Your task to perform on an android device: What's the weather today? Image 0: 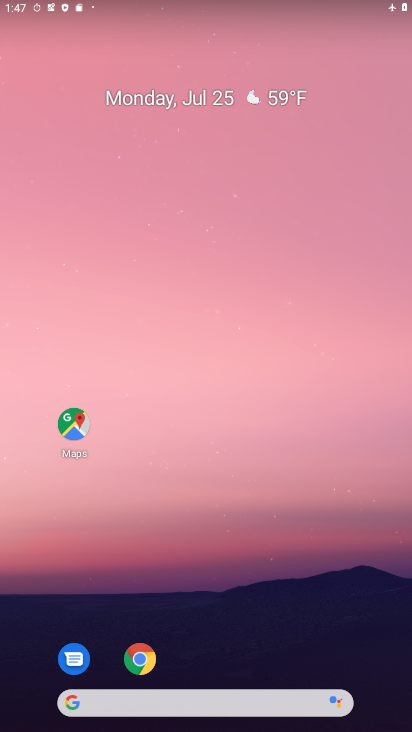
Step 0: click (158, 687)
Your task to perform on an android device: What's the weather today? Image 1: 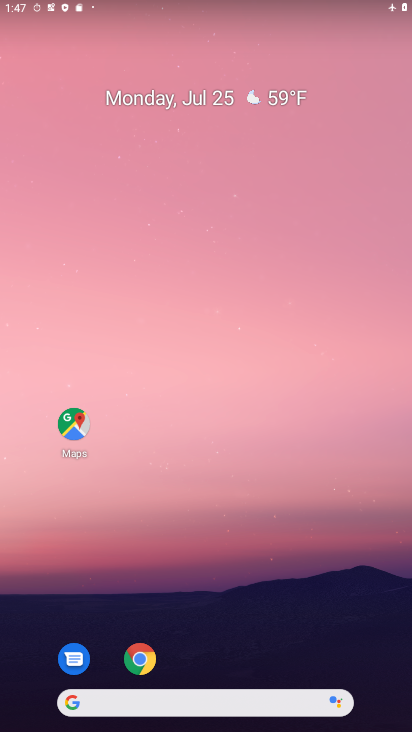
Step 1: click (157, 694)
Your task to perform on an android device: What's the weather today? Image 2: 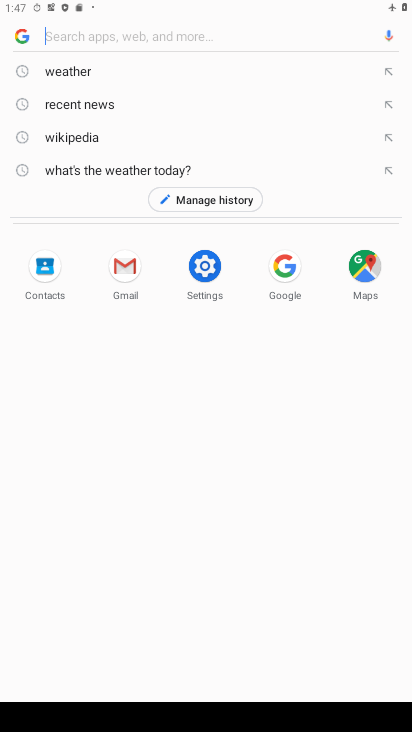
Step 2: type "What's the weather today?"
Your task to perform on an android device: What's the weather today? Image 3: 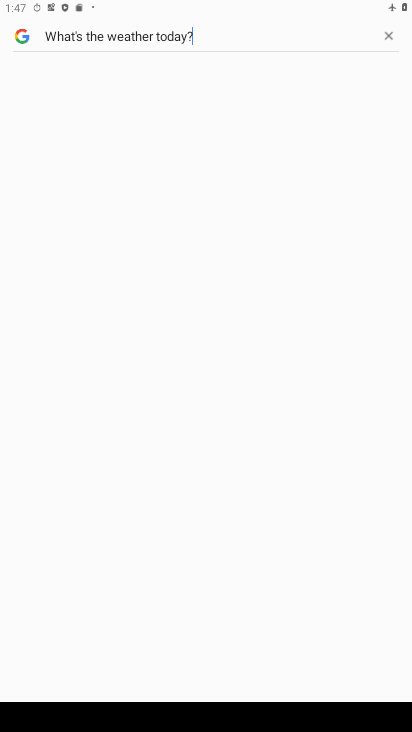
Step 3: task complete